Your task to perform on an android device: turn off priority inbox in the gmail app Image 0: 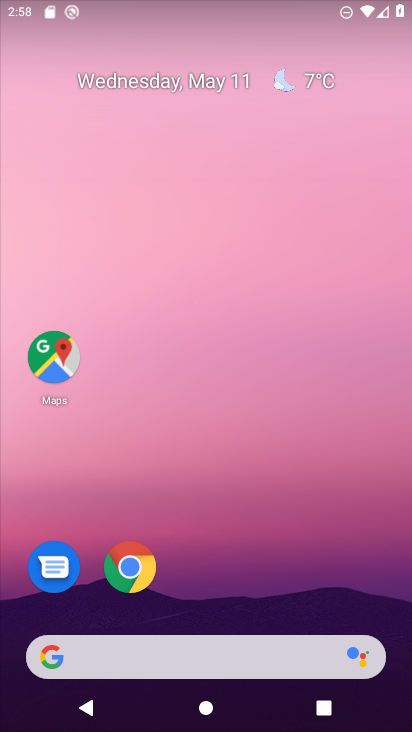
Step 0: drag from (319, 555) to (258, 257)
Your task to perform on an android device: turn off priority inbox in the gmail app Image 1: 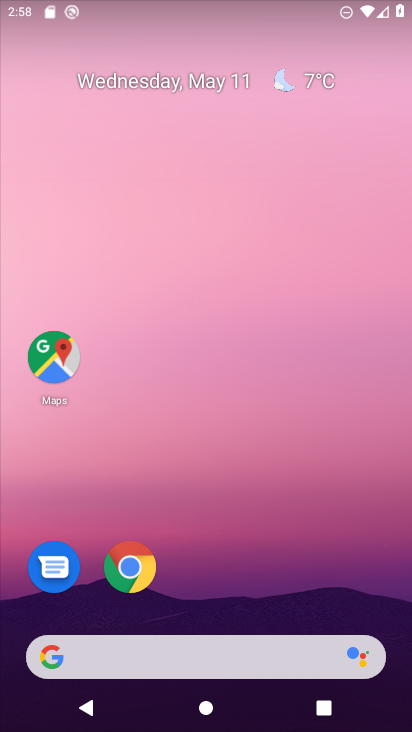
Step 1: drag from (333, 606) to (266, 204)
Your task to perform on an android device: turn off priority inbox in the gmail app Image 2: 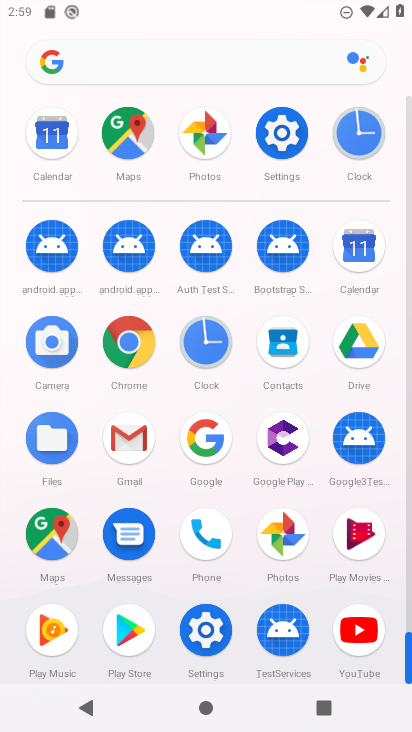
Step 2: click (121, 432)
Your task to perform on an android device: turn off priority inbox in the gmail app Image 3: 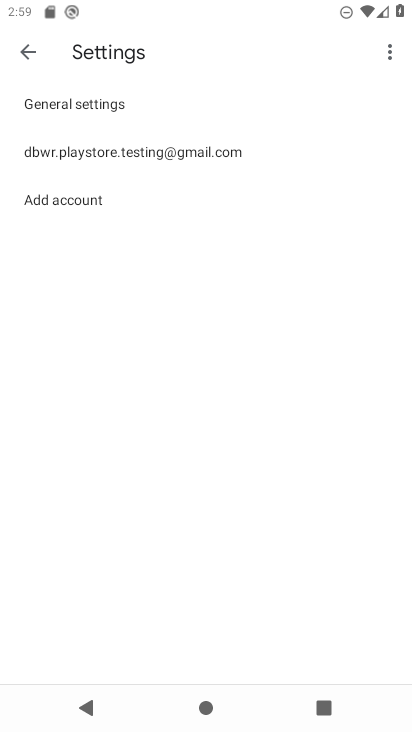
Step 3: click (74, 154)
Your task to perform on an android device: turn off priority inbox in the gmail app Image 4: 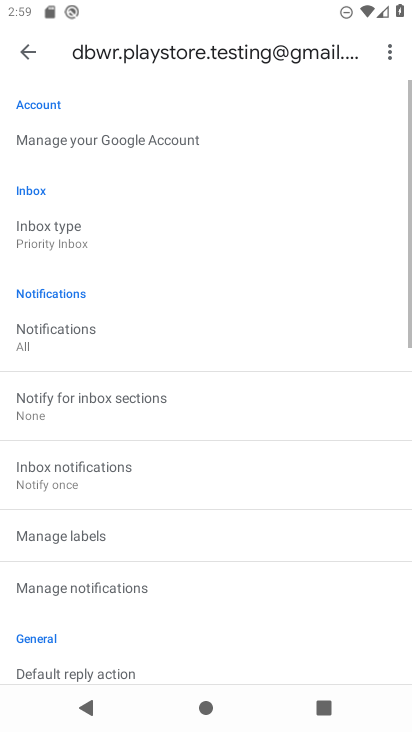
Step 4: click (115, 228)
Your task to perform on an android device: turn off priority inbox in the gmail app Image 5: 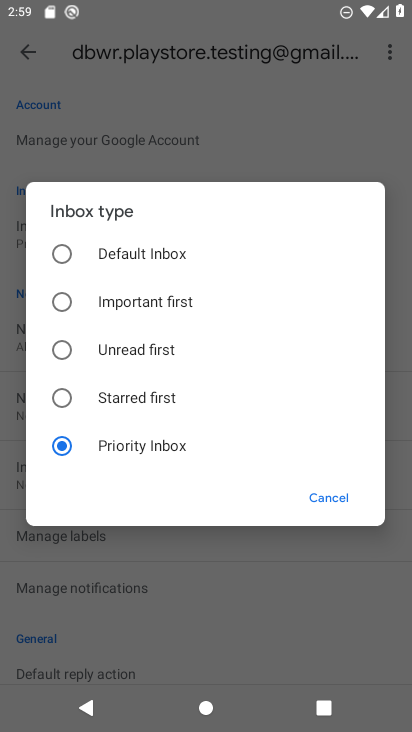
Step 5: click (127, 245)
Your task to perform on an android device: turn off priority inbox in the gmail app Image 6: 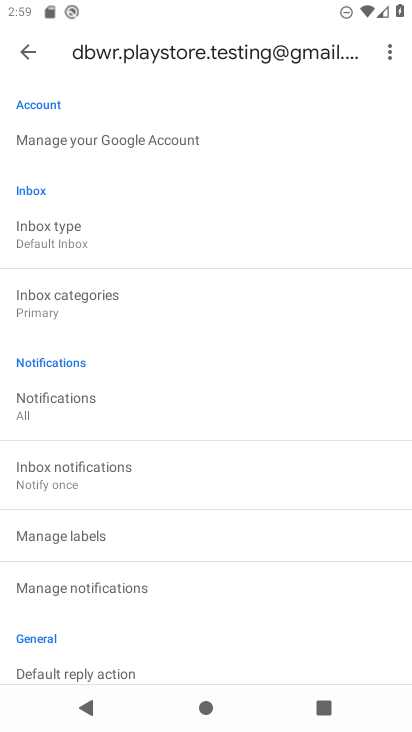
Step 6: task complete